Your task to perform on an android device: empty trash in google photos Image 0: 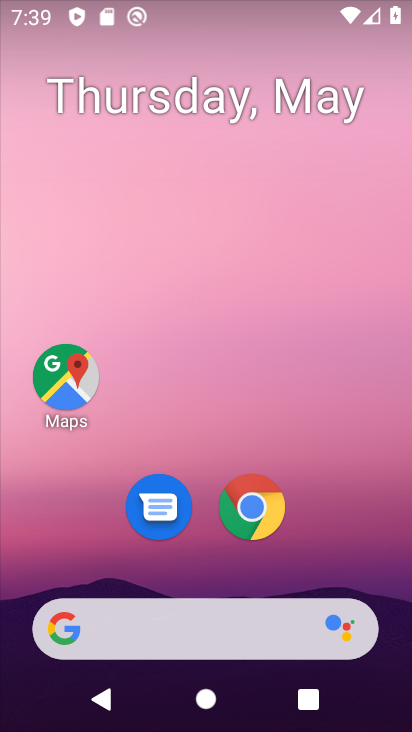
Step 0: drag from (257, 682) to (222, 178)
Your task to perform on an android device: empty trash in google photos Image 1: 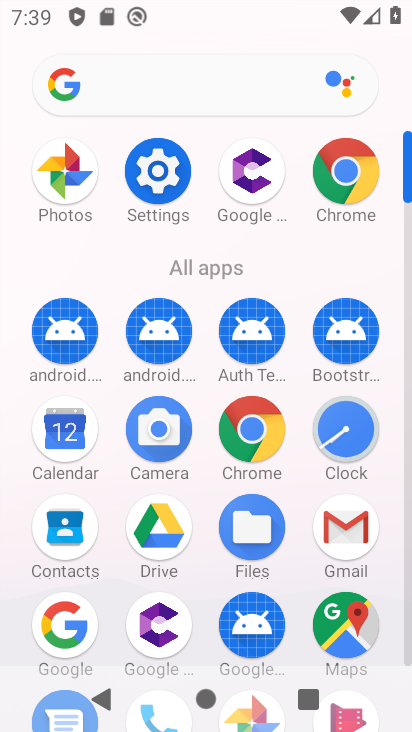
Step 1: drag from (210, 566) to (206, 381)
Your task to perform on an android device: empty trash in google photos Image 2: 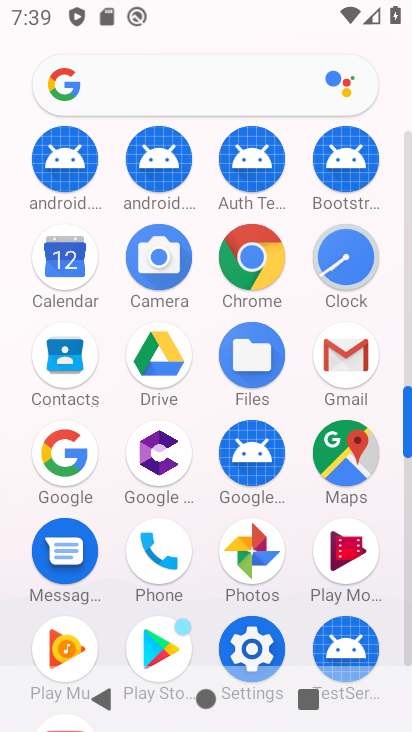
Step 2: click (261, 551)
Your task to perform on an android device: empty trash in google photos Image 3: 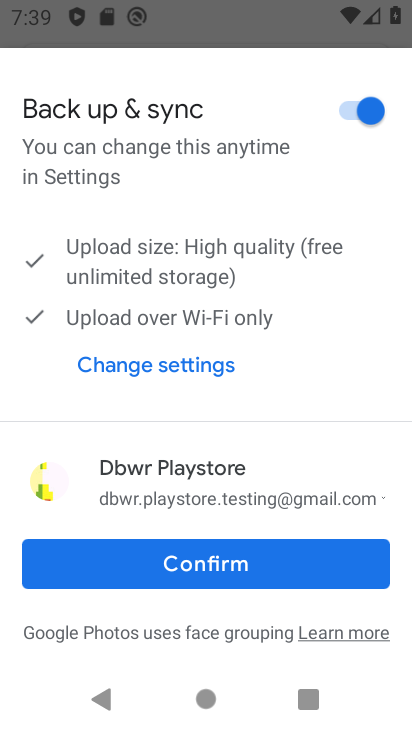
Step 3: click (220, 545)
Your task to perform on an android device: empty trash in google photos Image 4: 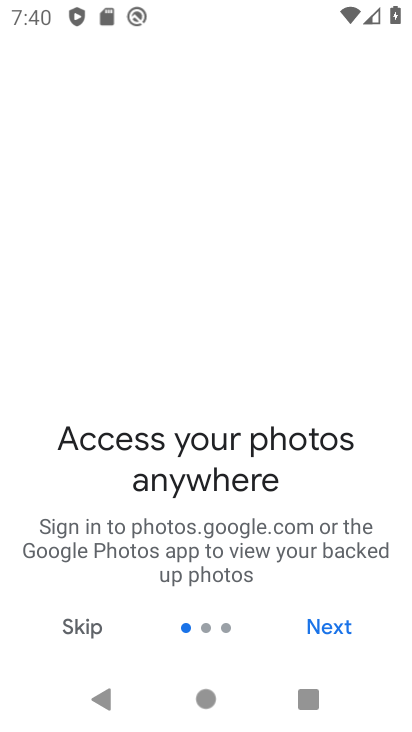
Step 4: click (320, 631)
Your task to perform on an android device: empty trash in google photos Image 5: 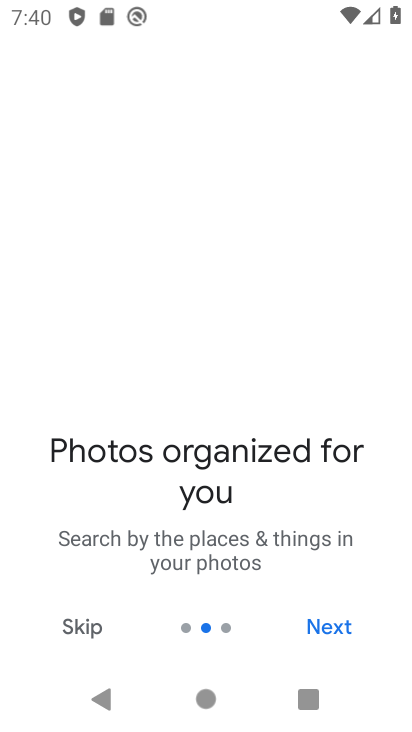
Step 5: click (332, 629)
Your task to perform on an android device: empty trash in google photos Image 6: 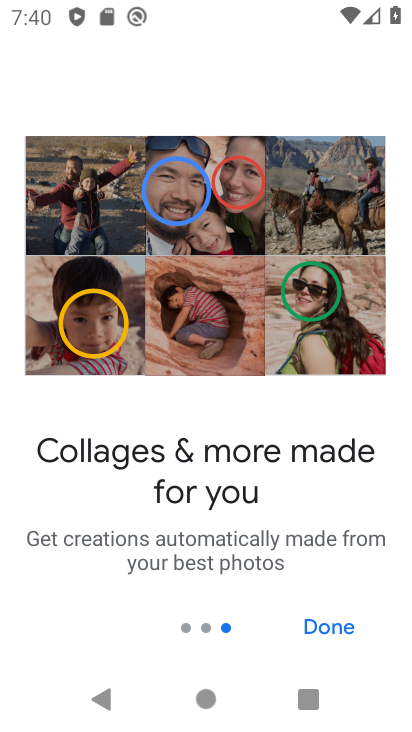
Step 6: click (330, 627)
Your task to perform on an android device: empty trash in google photos Image 7: 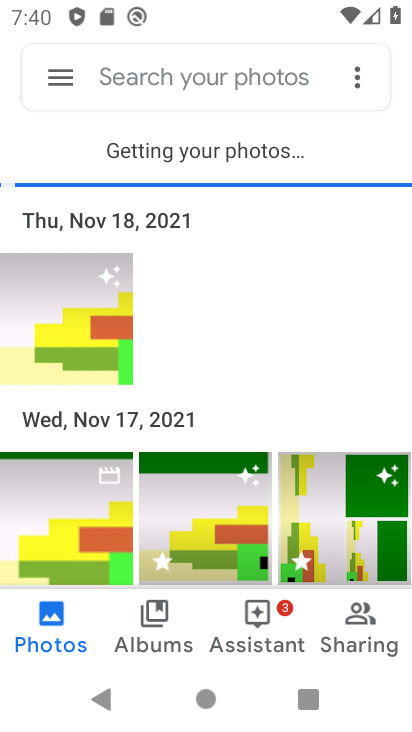
Step 7: click (52, 79)
Your task to perform on an android device: empty trash in google photos Image 8: 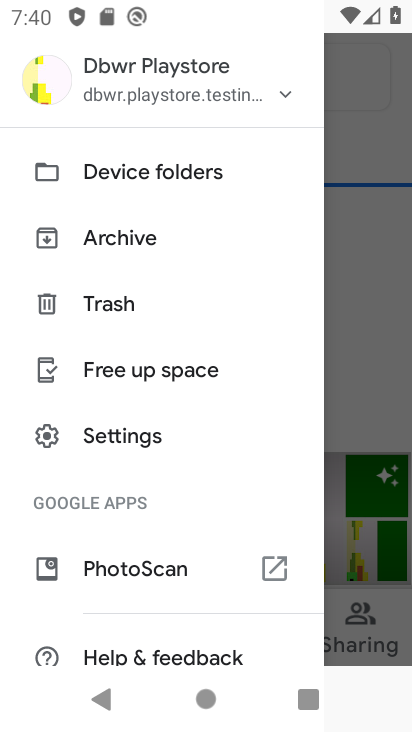
Step 8: click (118, 314)
Your task to perform on an android device: empty trash in google photos Image 9: 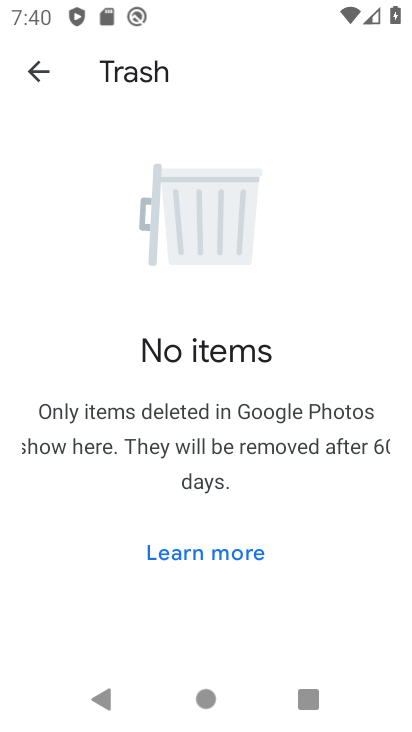
Step 9: task complete